Your task to perform on an android device: See recent photos Image 0: 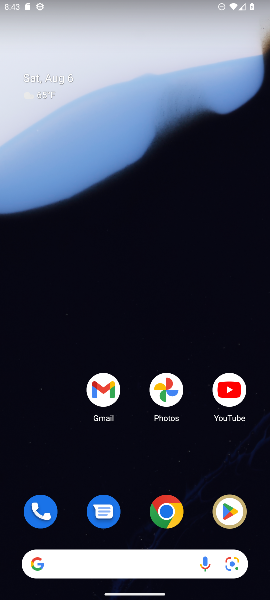
Step 0: drag from (152, 438) to (167, 69)
Your task to perform on an android device: See recent photos Image 1: 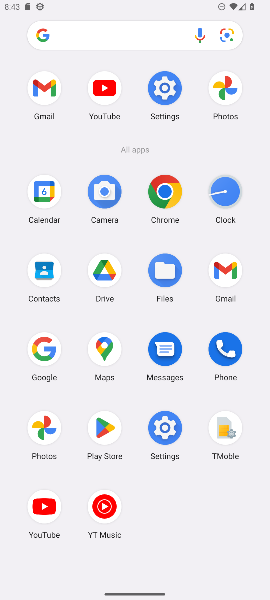
Step 1: click (224, 98)
Your task to perform on an android device: See recent photos Image 2: 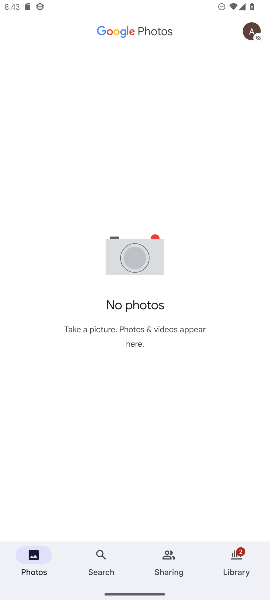
Step 2: task complete